Your task to perform on an android device: What is the recent news? Image 0: 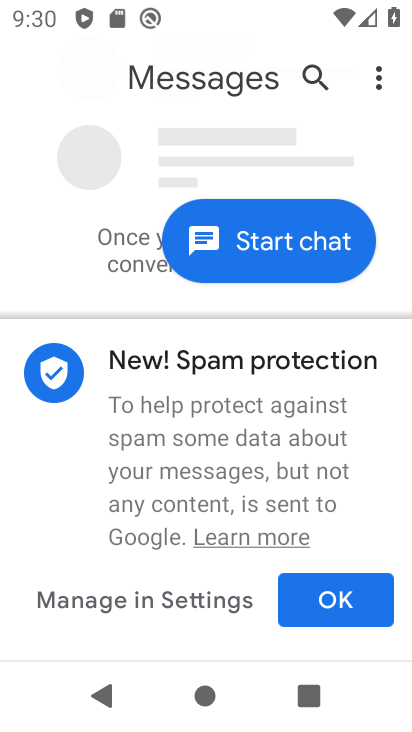
Step 0: press home button
Your task to perform on an android device: What is the recent news? Image 1: 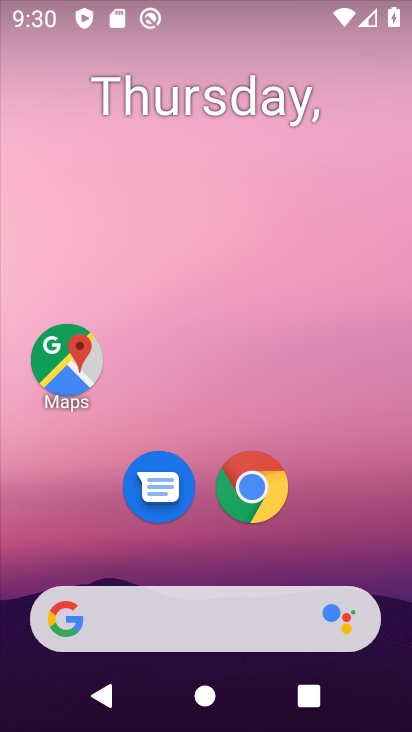
Step 1: click (247, 494)
Your task to perform on an android device: What is the recent news? Image 2: 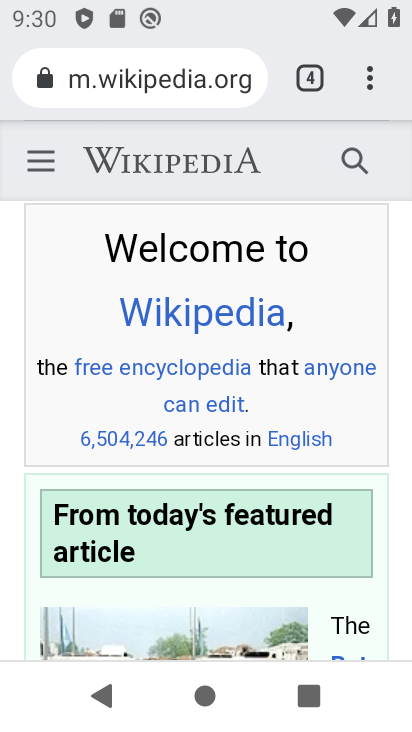
Step 2: click (318, 83)
Your task to perform on an android device: What is the recent news? Image 3: 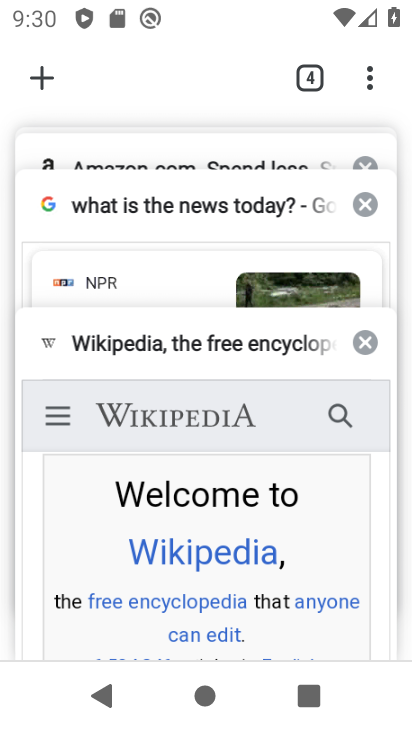
Step 3: click (36, 70)
Your task to perform on an android device: What is the recent news? Image 4: 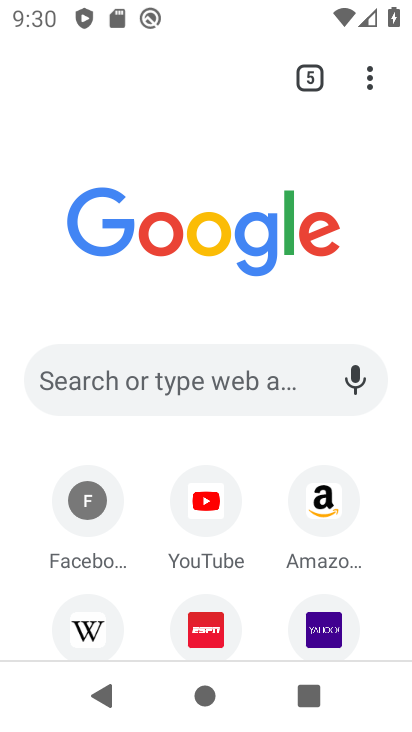
Step 4: click (101, 381)
Your task to perform on an android device: What is the recent news? Image 5: 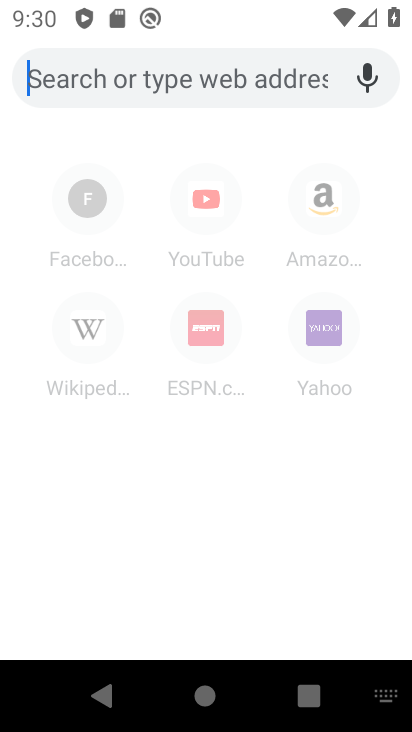
Step 5: type "what is the recent news?"
Your task to perform on an android device: What is the recent news? Image 6: 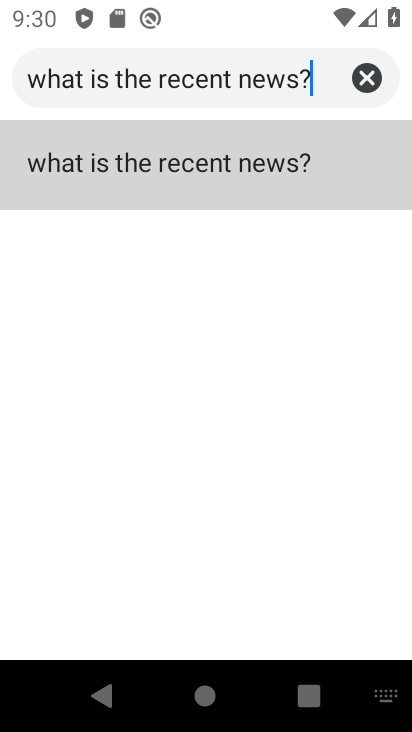
Step 6: click (271, 170)
Your task to perform on an android device: What is the recent news? Image 7: 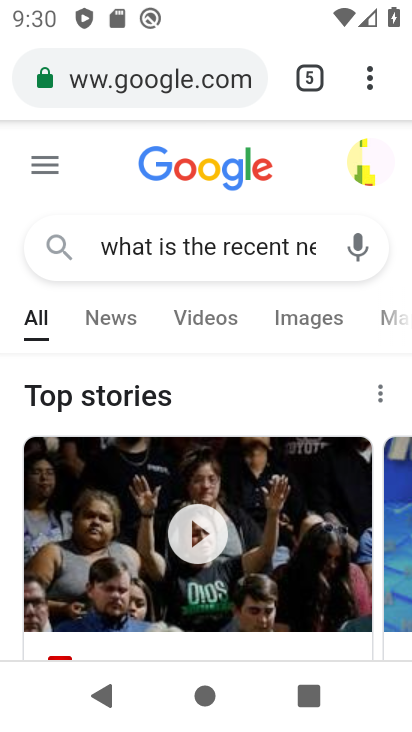
Step 7: click (126, 318)
Your task to perform on an android device: What is the recent news? Image 8: 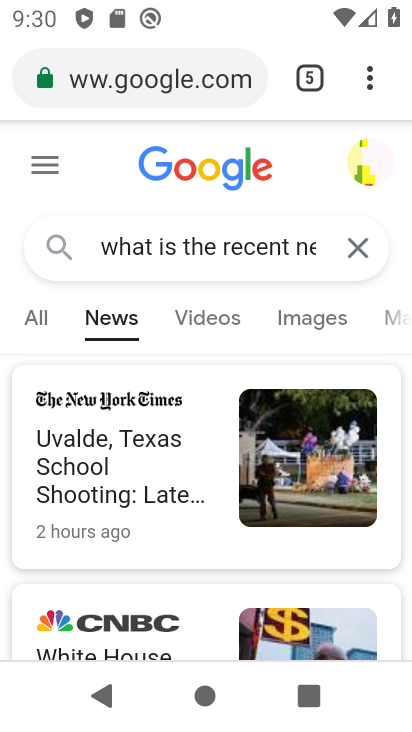
Step 8: task complete